Your task to perform on an android device: Open the stopwatch Image 0: 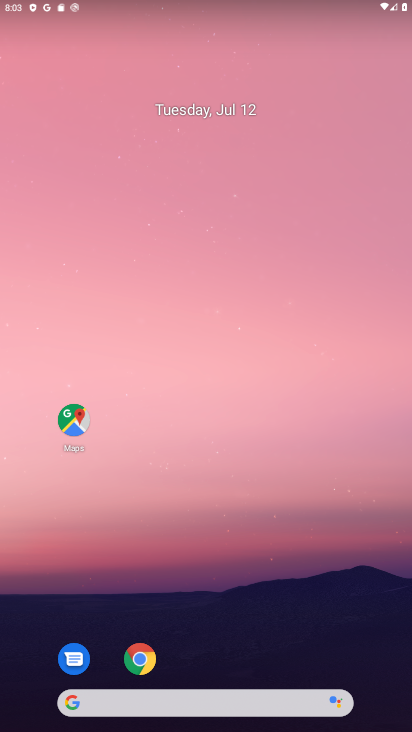
Step 0: drag from (289, 730) to (238, 367)
Your task to perform on an android device: Open the stopwatch Image 1: 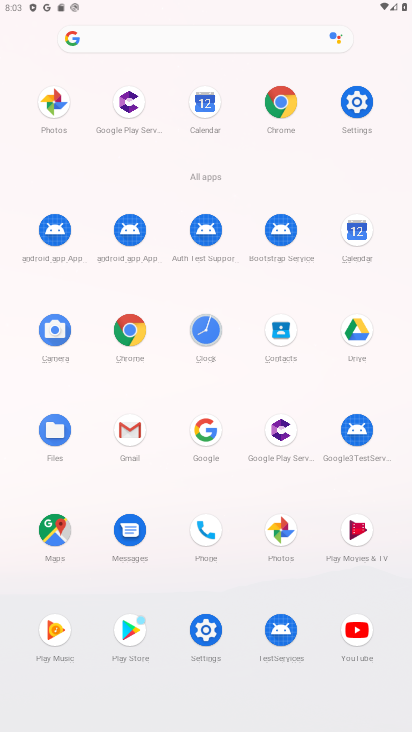
Step 1: click (198, 333)
Your task to perform on an android device: Open the stopwatch Image 2: 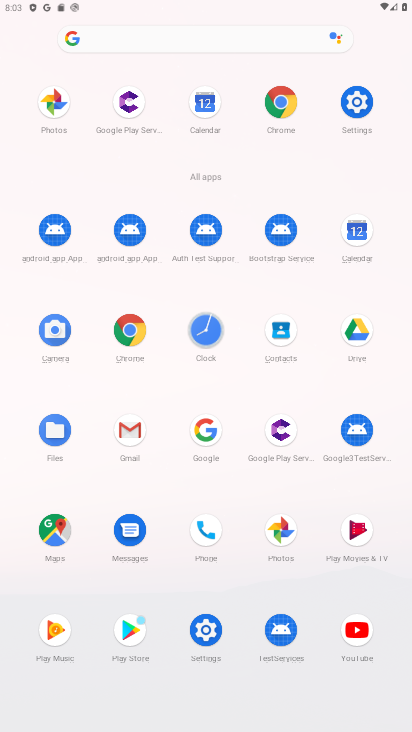
Step 2: click (198, 333)
Your task to perform on an android device: Open the stopwatch Image 3: 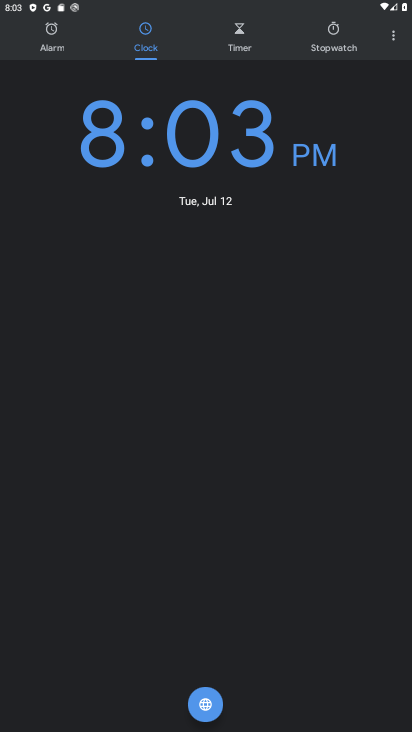
Step 3: click (334, 33)
Your task to perform on an android device: Open the stopwatch Image 4: 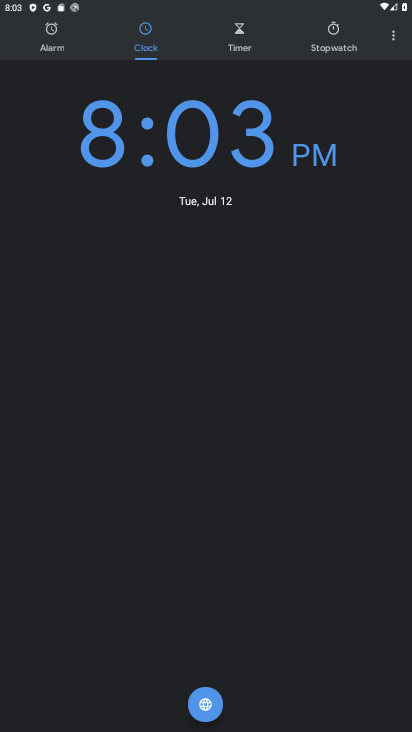
Step 4: click (336, 39)
Your task to perform on an android device: Open the stopwatch Image 5: 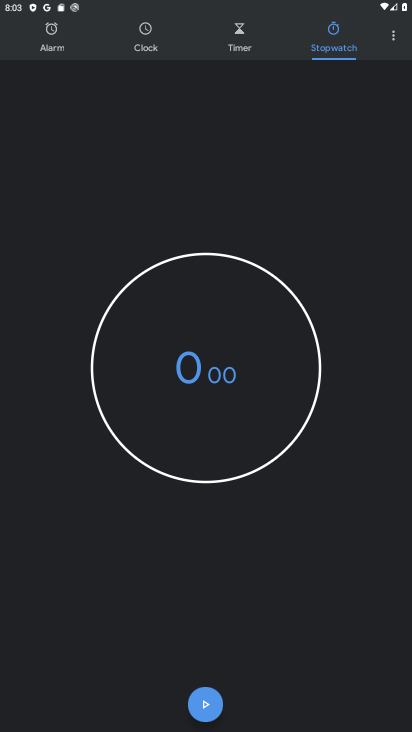
Step 5: click (198, 703)
Your task to perform on an android device: Open the stopwatch Image 6: 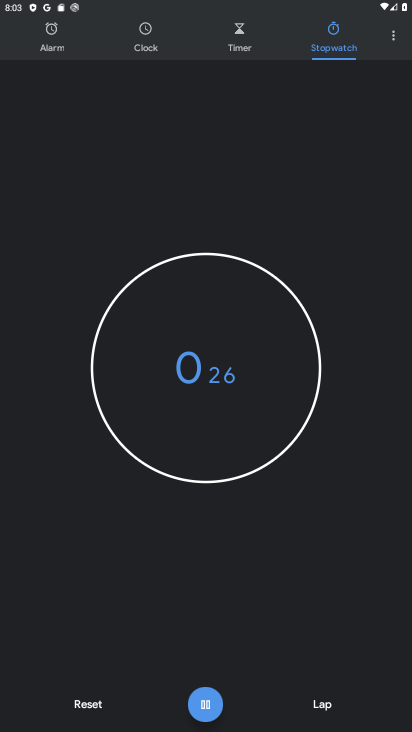
Step 6: click (206, 700)
Your task to perform on an android device: Open the stopwatch Image 7: 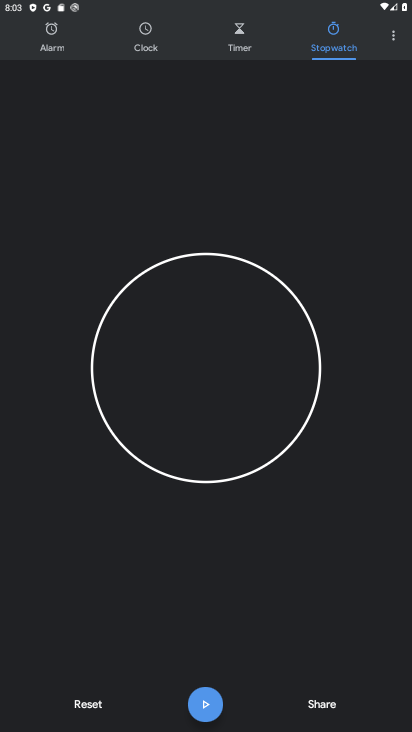
Step 7: click (209, 701)
Your task to perform on an android device: Open the stopwatch Image 8: 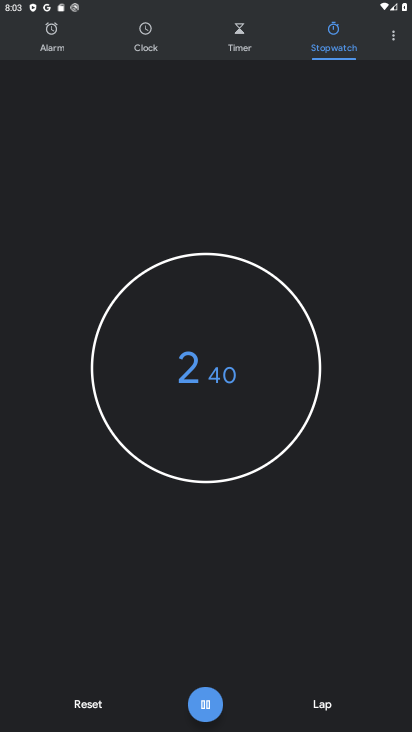
Step 8: click (209, 701)
Your task to perform on an android device: Open the stopwatch Image 9: 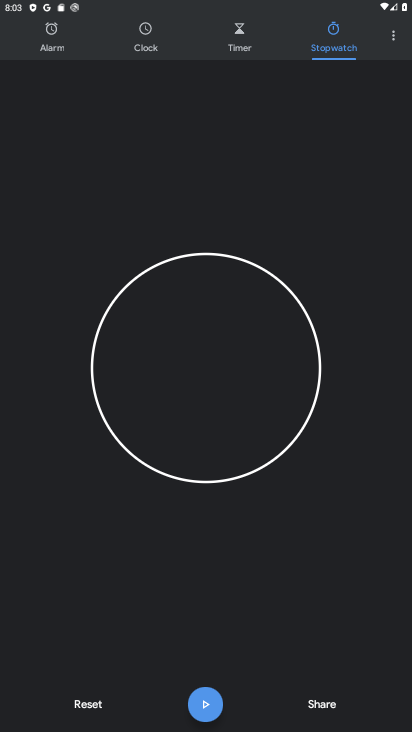
Step 9: task complete